Your task to perform on an android device: empty trash in the gmail app Image 0: 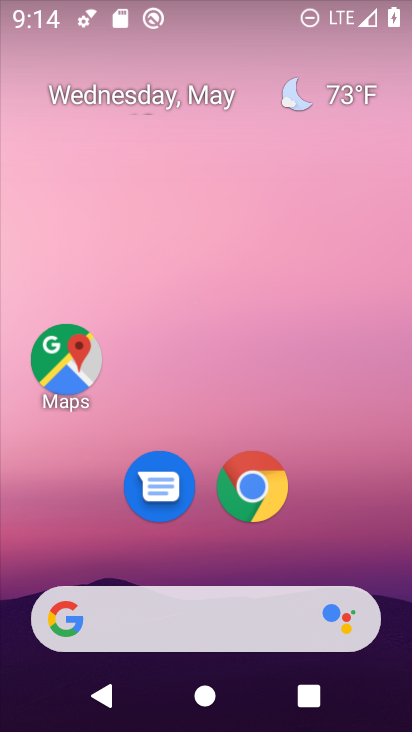
Step 0: drag from (404, 615) to (301, 190)
Your task to perform on an android device: empty trash in the gmail app Image 1: 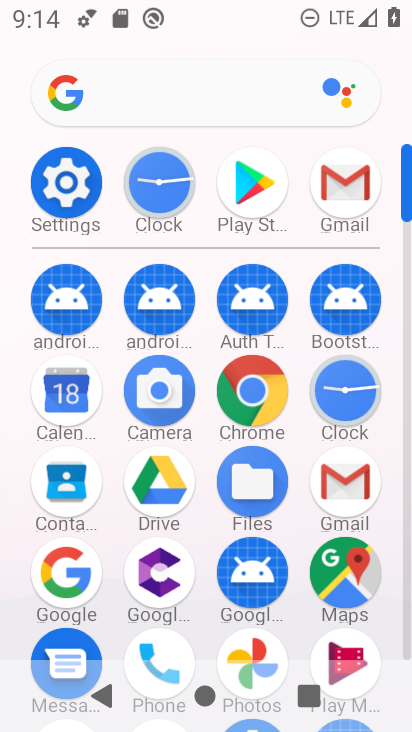
Step 1: click (404, 647)
Your task to perform on an android device: empty trash in the gmail app Image 2: 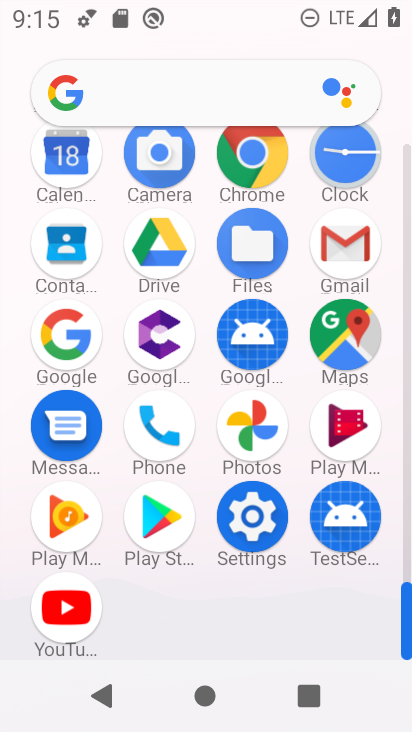
Step 2: click (344, 243)
Your task to perform on an android device: empty trash in the gmail app Image 3: 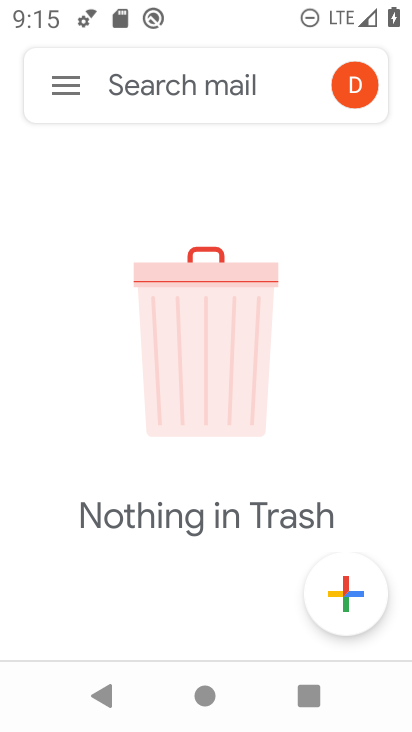
Step 3: click (66, 91)
Your task to perform on an android device: empty trash in the gmail app Image 4: 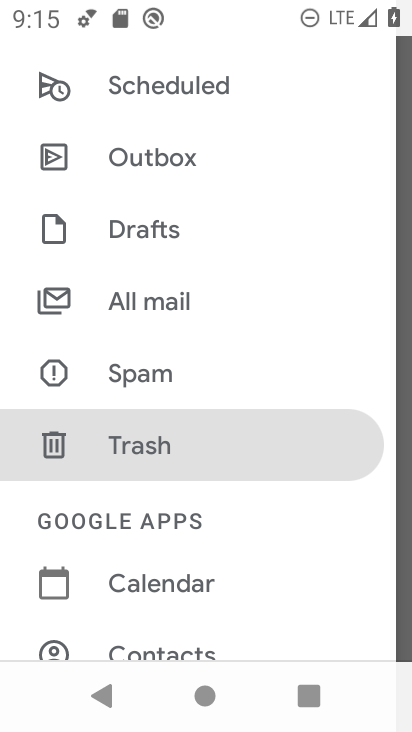
Step 4: click (162, 448)
Your task to perform on an android device: empty trash in the gmail app Image 5: 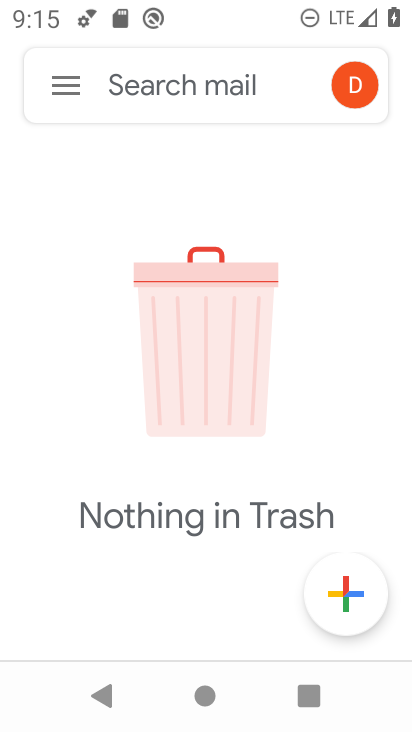
Step 5: task complete